Your task to perform on an android device: Is it going to rain this weekend? Image 0: 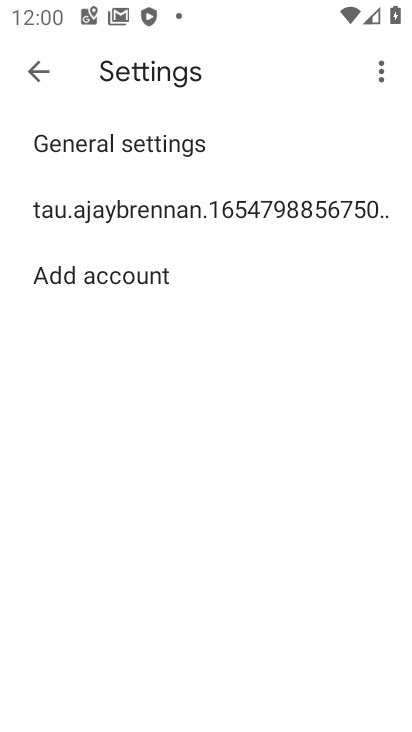
Step 0: drag from (241, 605) to (296, 185)
Your task to perform on an android device: Is it going to rain this weekend? Image 1: 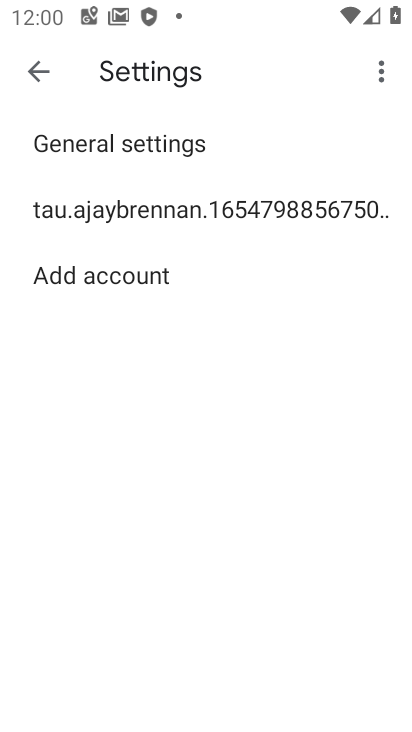
Step 1: press home button
Your task to perform on an android device: Is it going to rain this weekend? Image 2: 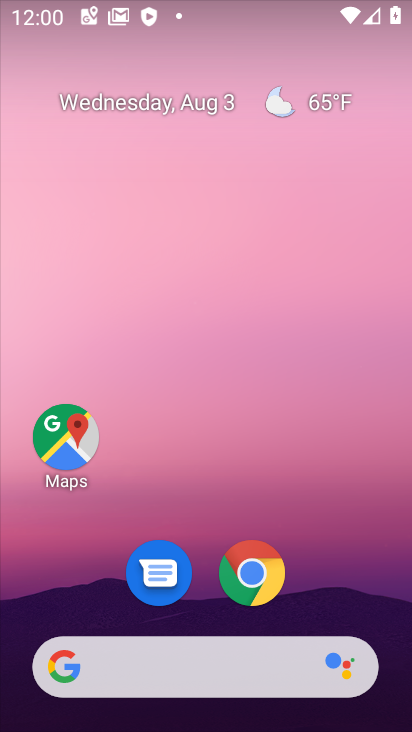
Step 2: drag from (184, 624) to (208, 270)
Your task to perform on an android device: Is it going to rain this weekend? Image 3: 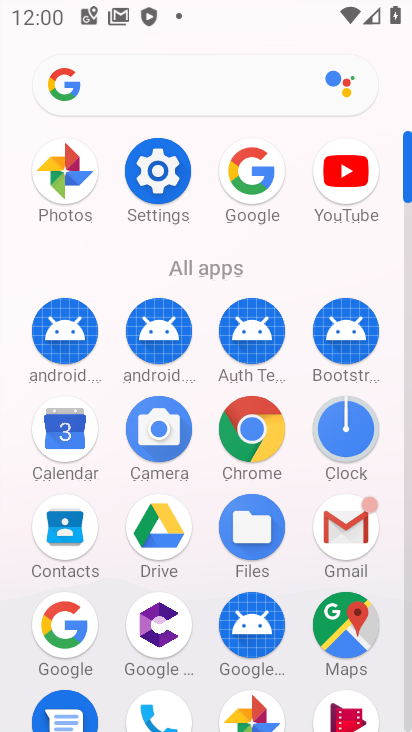
Step 3: click (162, 76)
Your task to perform on an android device: Is it going to rain this weekend? Image 4: 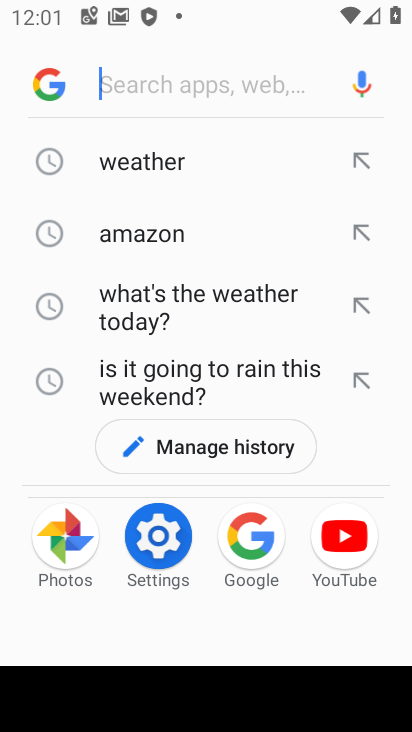
Step 4: type "Is it going to rain this weekend?"
Your task to perform on an android device: Is it going to rain this weekend? Image 5: 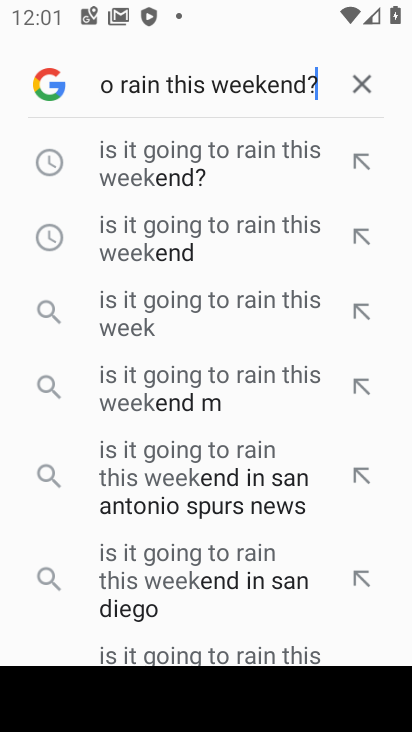
Step 5: type ""
Your task to perform on an android device: Is it going to rain this weekend? Image 6: 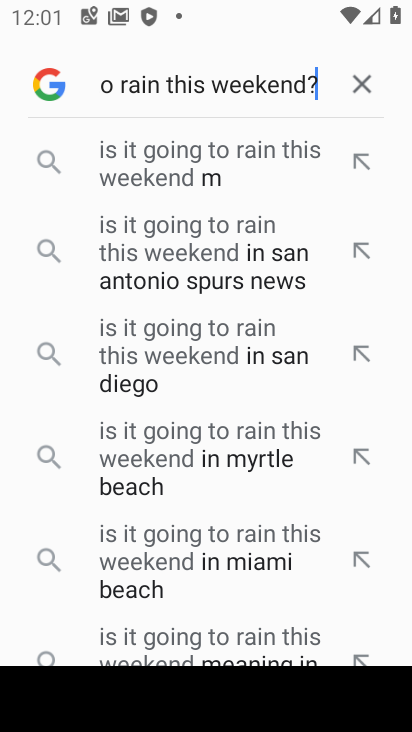
Step 6: click (155, 164)
Your task to perform on an android device: Is it going to rain this weekend? Image 7: 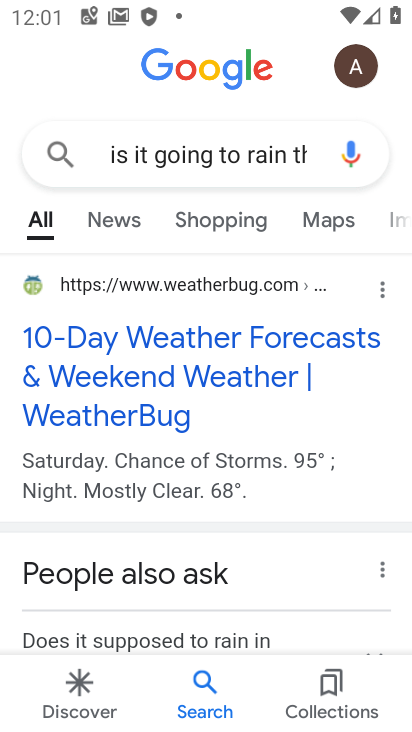
Step 7: task complete